Your task to perform on an android device: snooze an email in the gmail app Image 0: 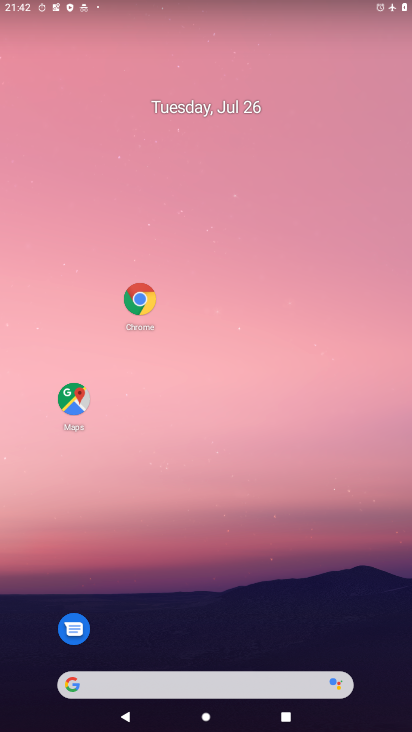
Step 0: drag from (234, 597) to (211, 274)
Your task to perform on an android device: snooze an email in the gmail app Image 1: 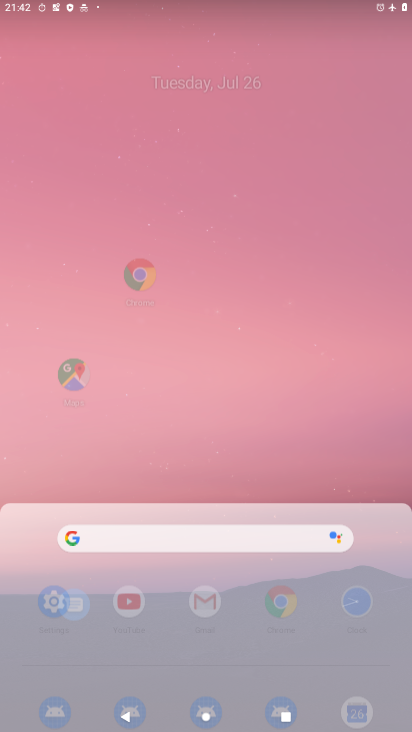
Step 1: drag from (268, 496) to (233, 81)
Your task to perform on an android device: snooze an email in the gmail app Image 2: 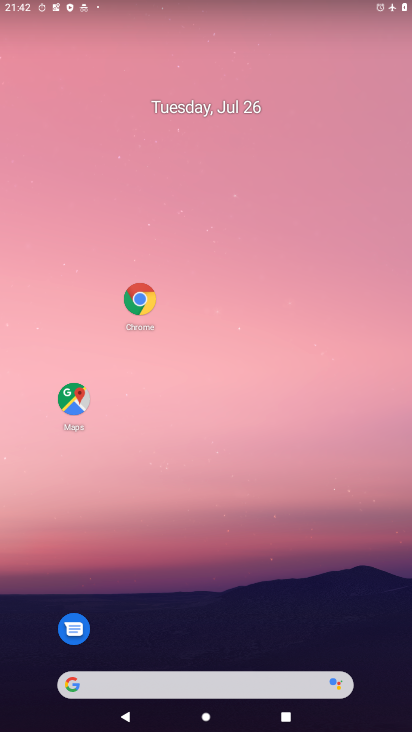
Step 2: drag from (280, 267) to (280, 131)
Your task to perform on an android device: snooze an email in the gmail app Image 3: 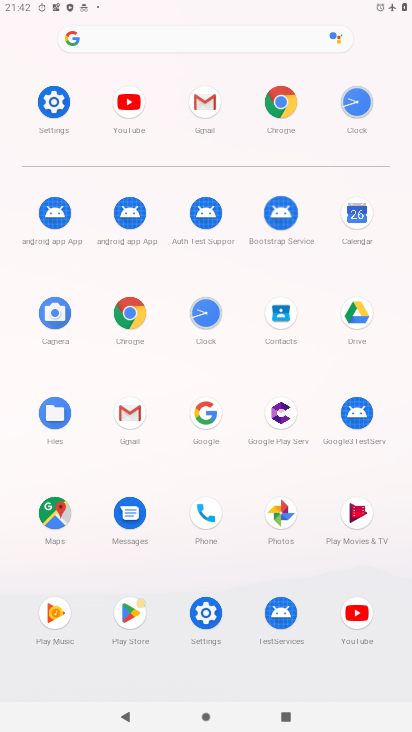
Step 3: drag from (178, 497) to (233, 143)
Your task to perform on an android device: snooze an email in the gmail app Image 4: 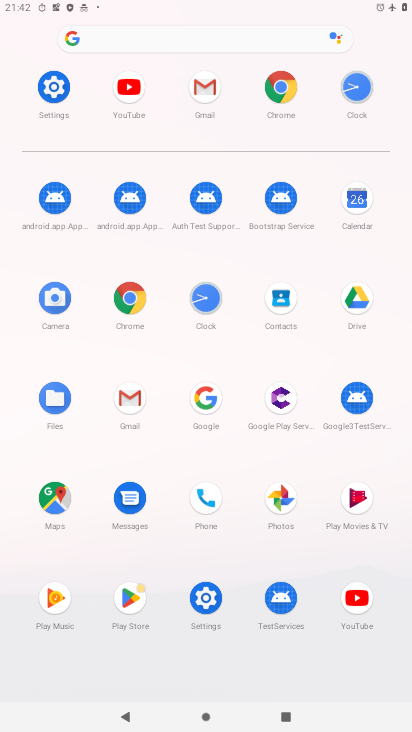
Step 4: drag from (247, 493) to (300, 181)
Your task to perform on an android device: snooze an email in the gmail app Image 5: 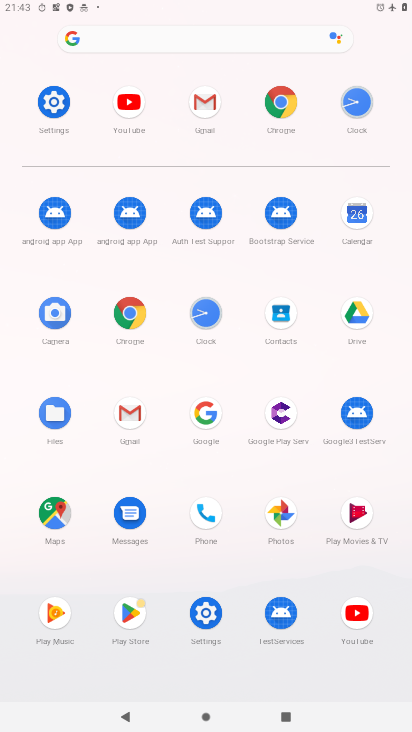
Step 5: click (129, 410)
Your task to perform on an android device: snooze an email in the gmail app Image 6: 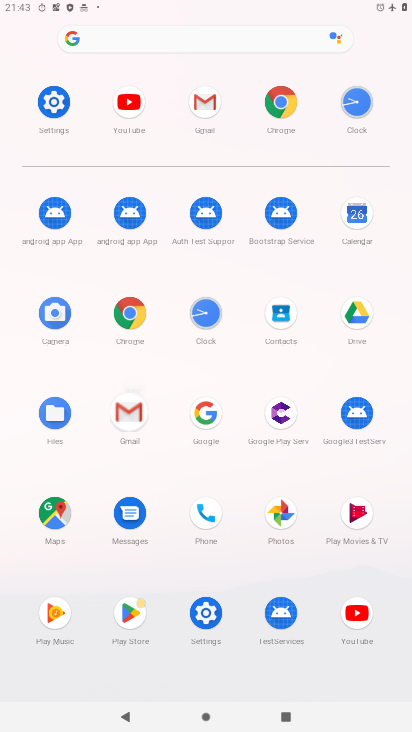
Step 6: click (128, 411)
Your task to perform on an android device: snooze an email in the gmail app Image 7: 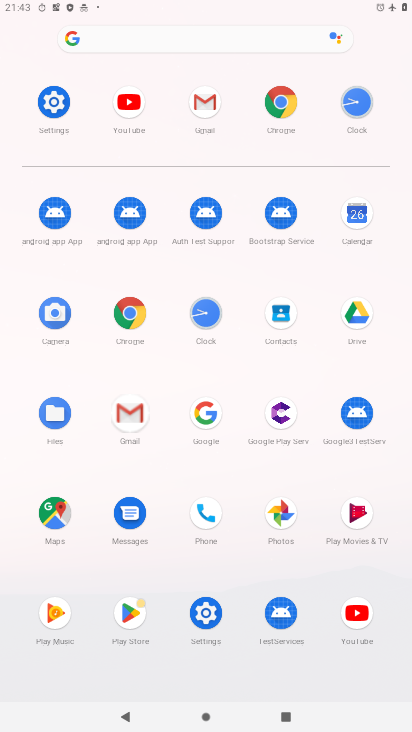
Step 7: click (128, 408)
Your task to perform on an android device: snooze an email in the gmail app Image 8: 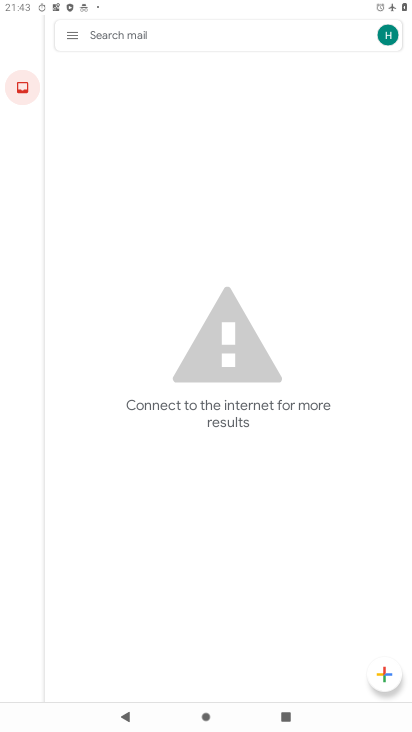
Step 8: click (72, 42)
Your task to perform on an android device: snooze an email in the gmail app Image 9: 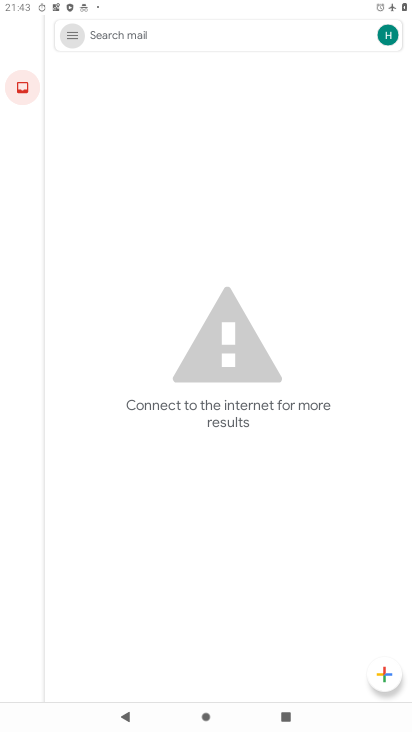
Step 9: click (71, 41)
Your task to perform on an android device: snooze an email in the gmail app Image 10: 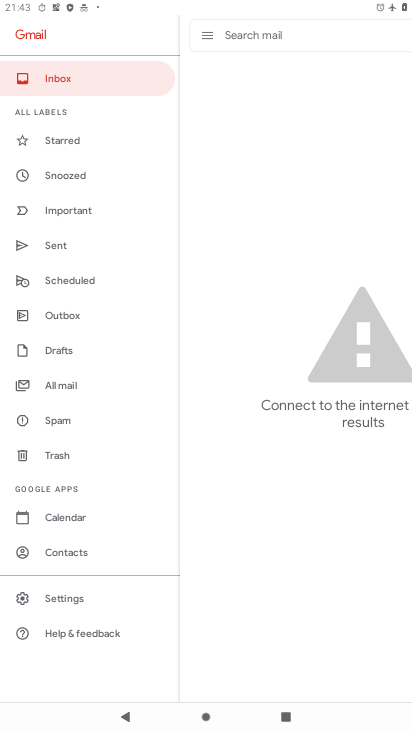
Step 10: click (68, 177)
Your task to perform on an android device: snooze an email in the gmail app Image 11: 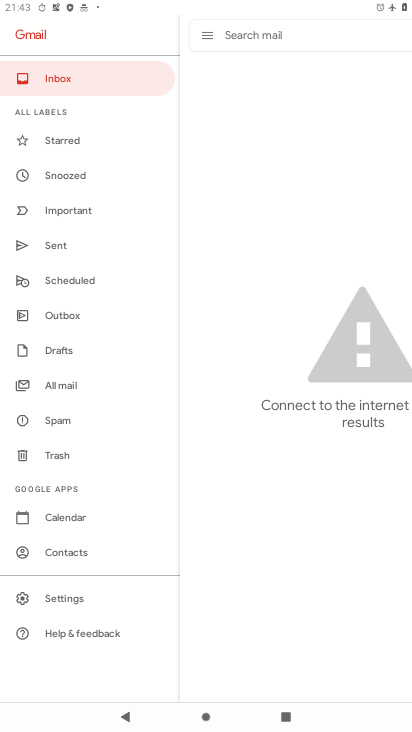
Step 11: click (67, 177)
Your task to perform on an android device: snooze an email in the gmail app Image 12: 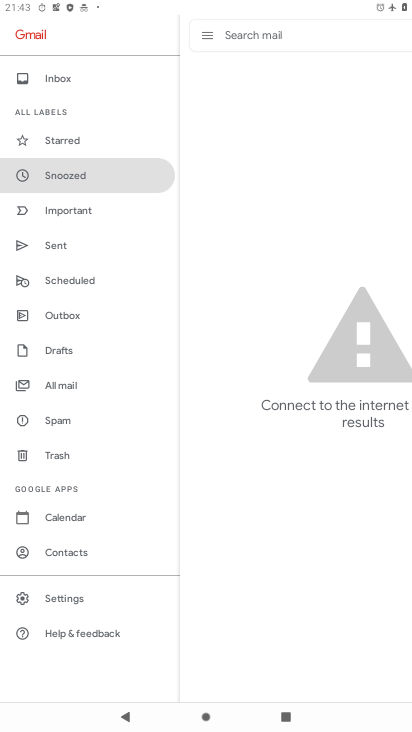
Step 12: click (65, 179)
Your task to perform on an android device: snooze an email in the gmail app Image 13: 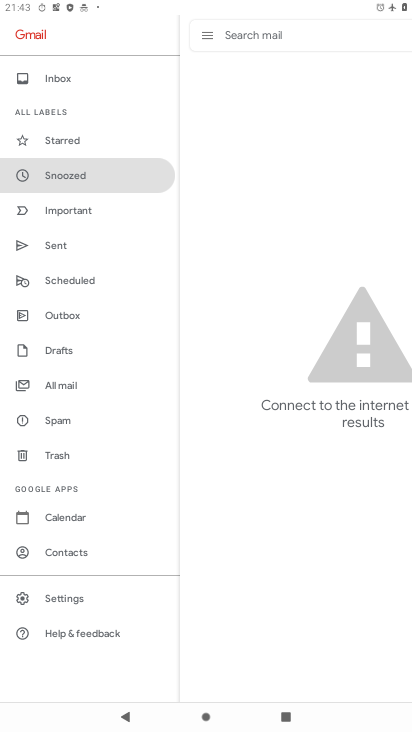
Step 13: click (66, 179)
Your task to perform on an android device: snooze an email in the gmail app Image 14: 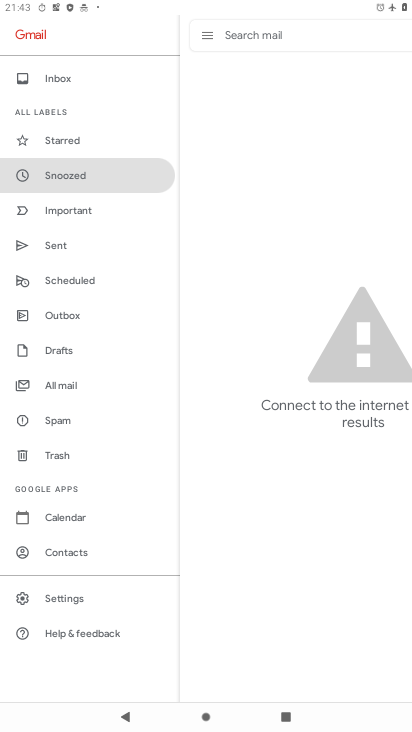
Step 14: task complete